Your task to perform on an android device: Add logitech g pro to the cart on costco, then select checkout. Image 0: 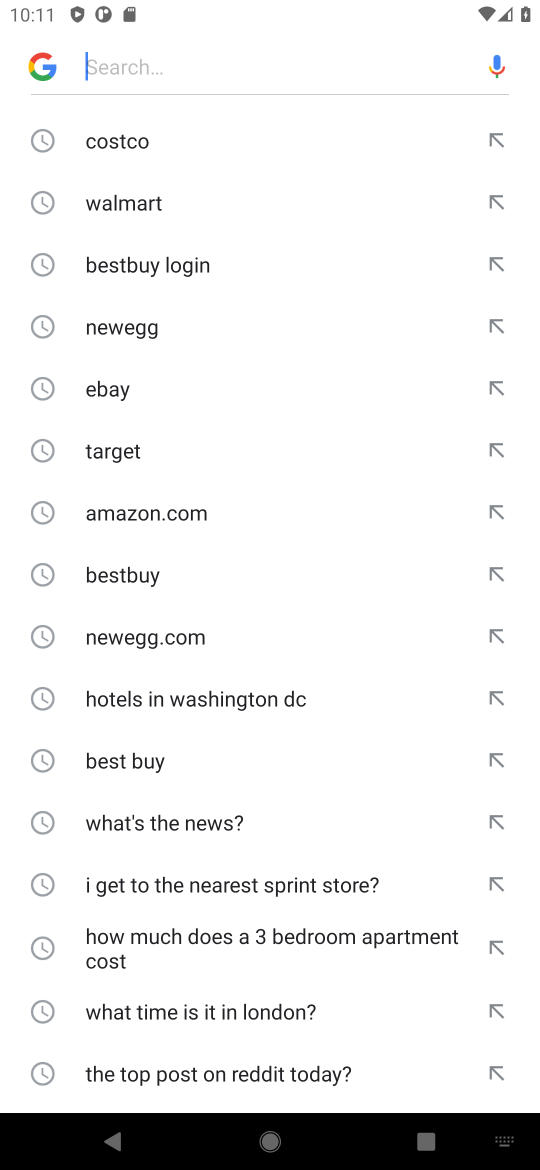
Step 0: press home button
Your task to perform on an android device: Add logitech g pro to the cart on costco, then select checkout. Image 1: 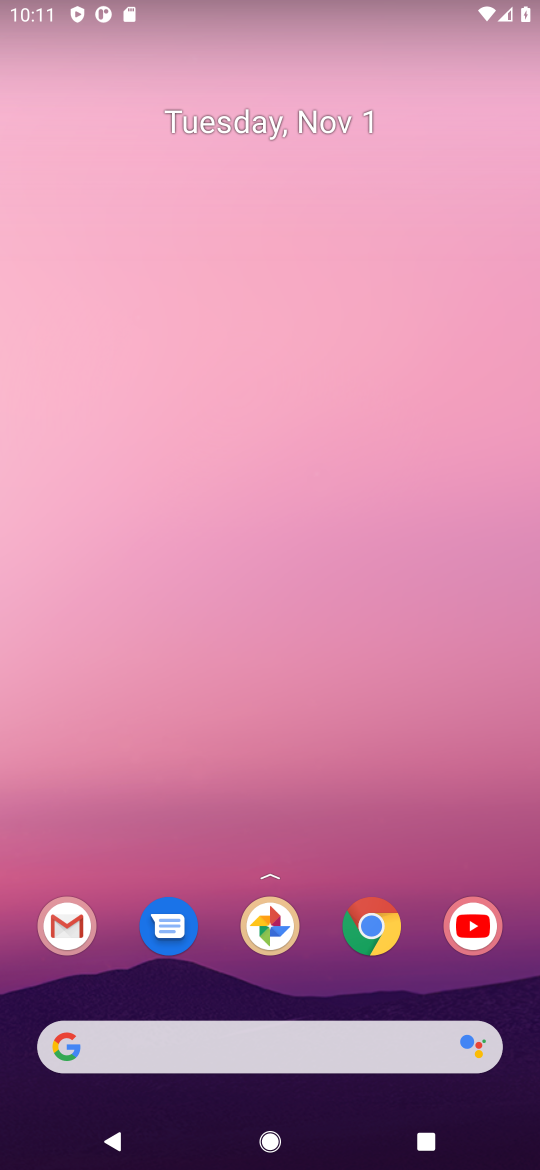
Step 1: click (372, 934)
Your task to perform on an android device: Add logitech g pro to the cart on costco, then select checkout. Image 2: 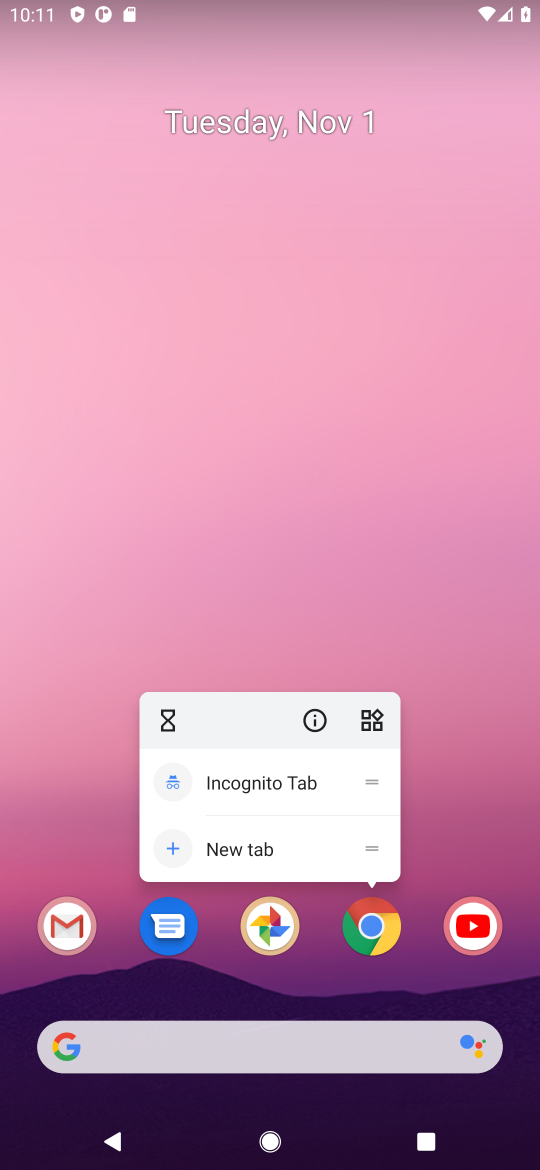
Step 2: click (371, 931)
Your task to perform on an android device: Add logitech g pro to the cart on costco, then select checkout. Image 3: 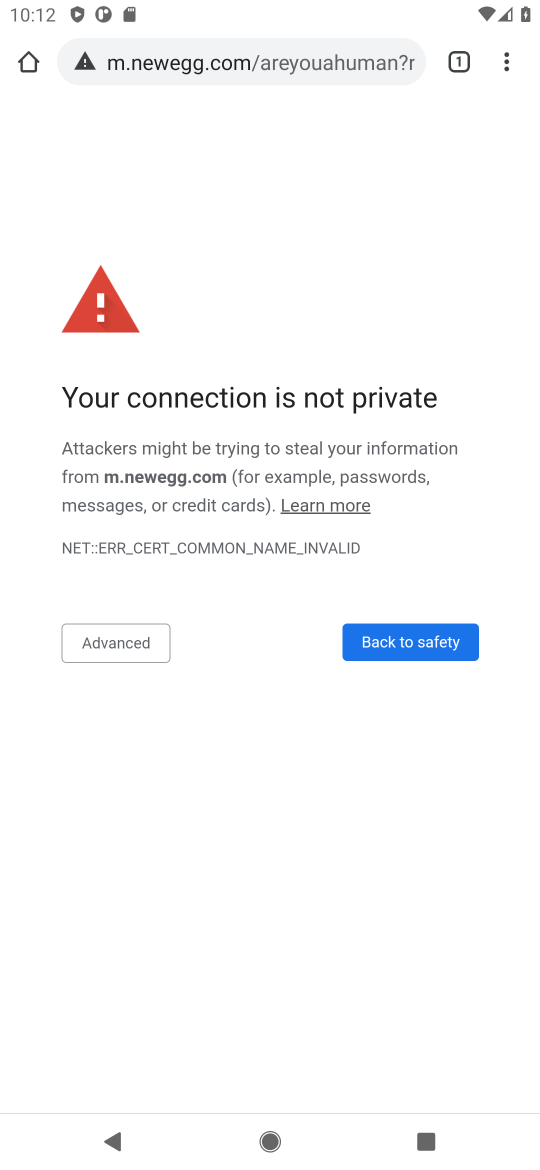
Step 3: click (176, 48)
Your task to perform on an android device: Add logitech g pro to the cart on costco, then select checkout. Image 4: 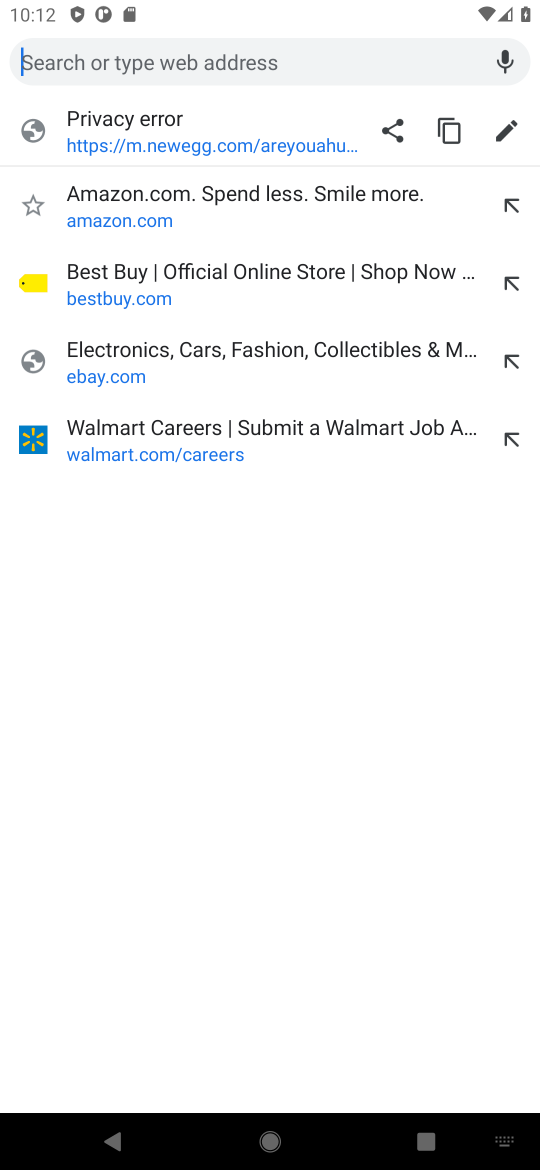
Step 4: type "costco"
Your task to perform on an android device: Add logitech g pro to the cart on costco, then select checkout. Image 5: 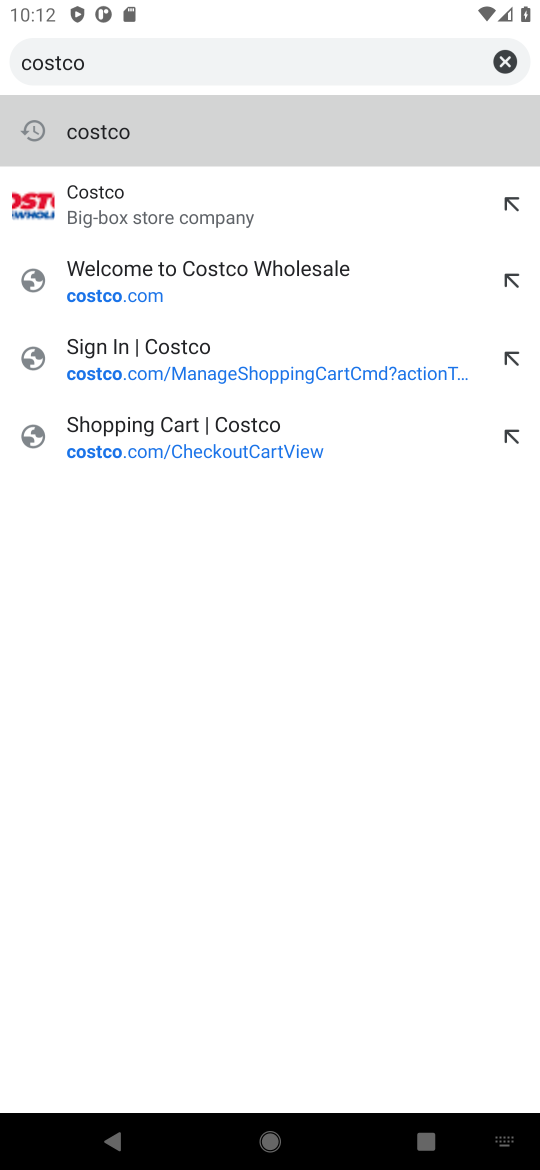
Step 5: click (140, 173)
Your task to perform on an android device: Add logitech g pro to the cart on costco, then select checkout. Image 6: 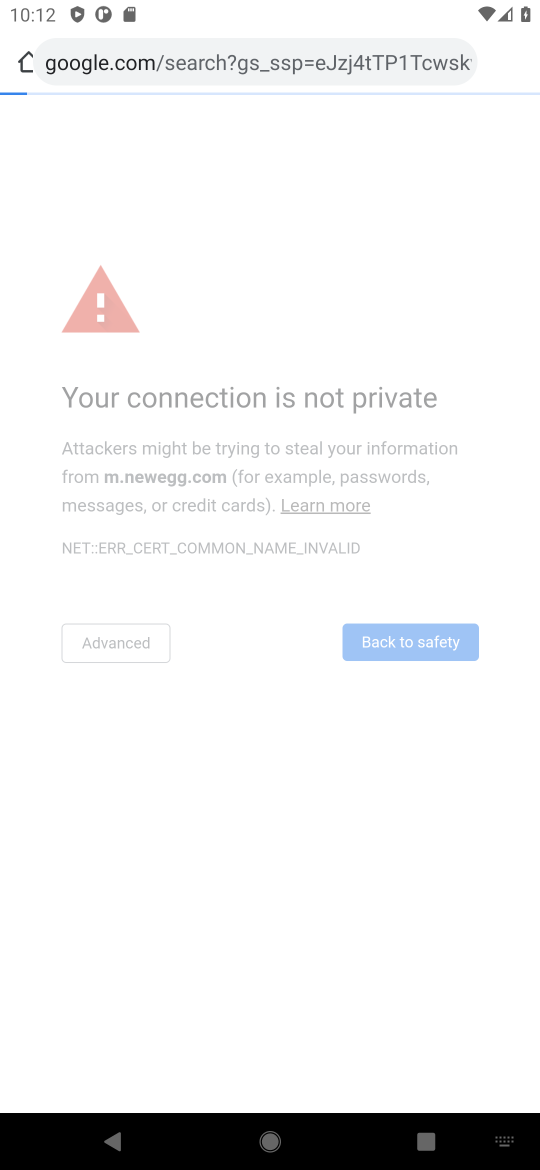
Step 6: click (88, 191)
Your task to perform on an android device: Add logitech g pro to the cart on costco, then select checkout. Image 7: 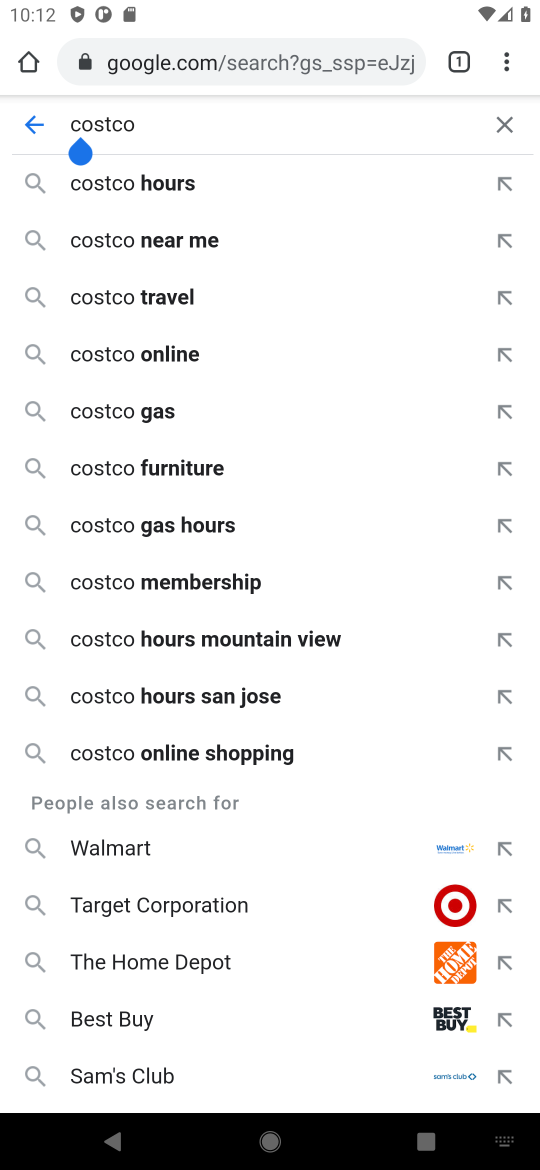
Step 7: press back button
Your task to perform on an android device: Add logitech g pro to the cart on costco, then select checkout. Image 8: 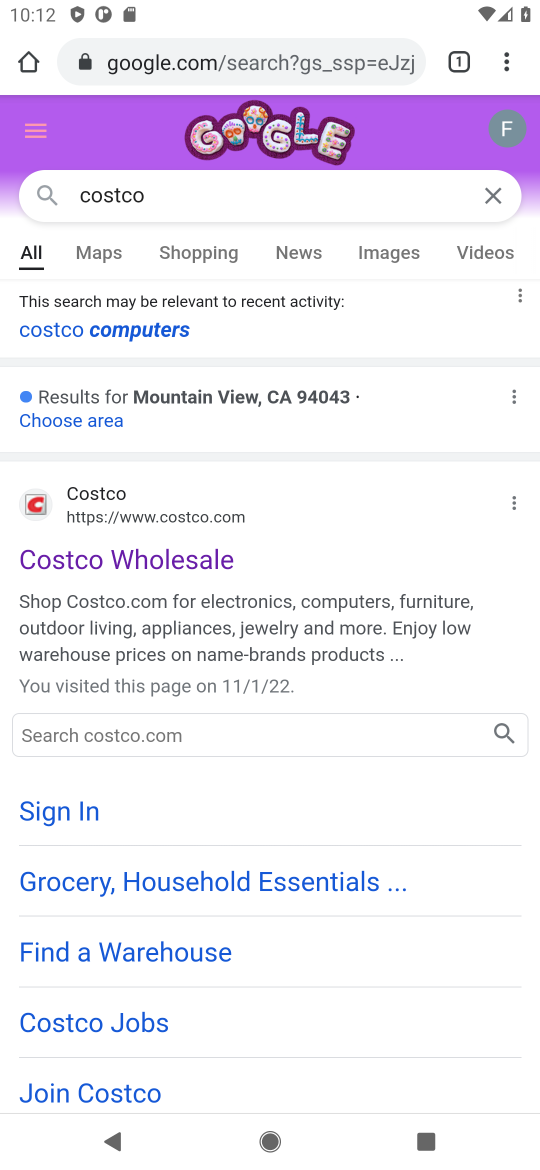
Step 8: drag from (184, 794) to (204, 67)
Your task to perform on an android device: Add logitech g pro to the cart on costco, then select checkout. Image 9: 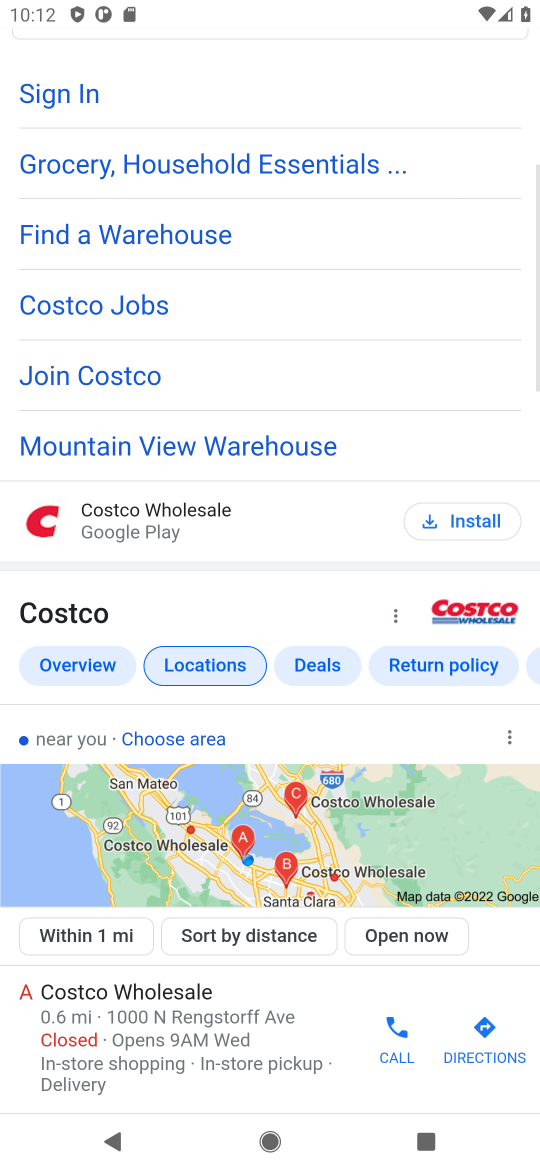
Step 9: drag from (115, 945) to (114, 481)
Your task to perform on an android device: Add logitech g pro to the cart on costco, then select checkout. Image 10: 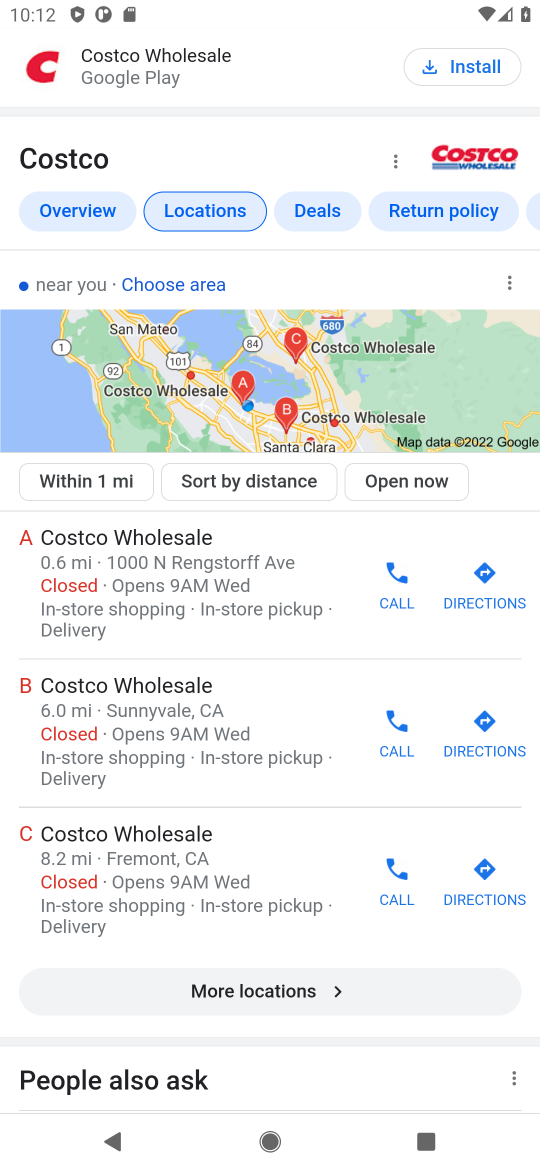
Step 10: drag from (119, 718) to (215, 233)
Your task to perform on an android device: Add logitech g pro to the cart on costco, then select checkout. Image 11: 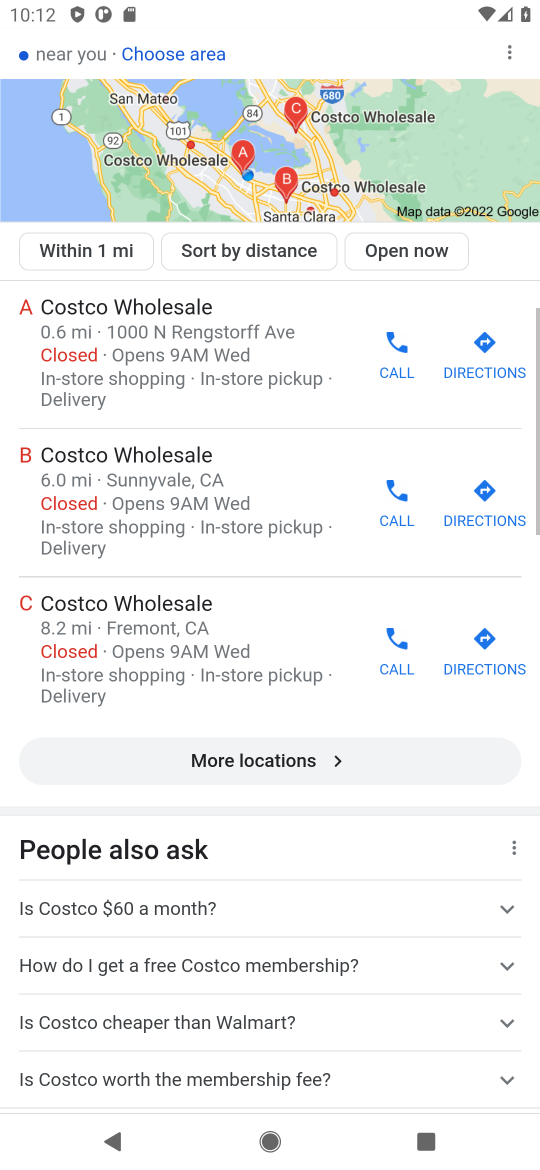
Step 11: drag from (162, 515) to (166, 1149)
Your task to perform on an android device: Add logitech g pro to the cart on costco, then select checkout. Image 12: 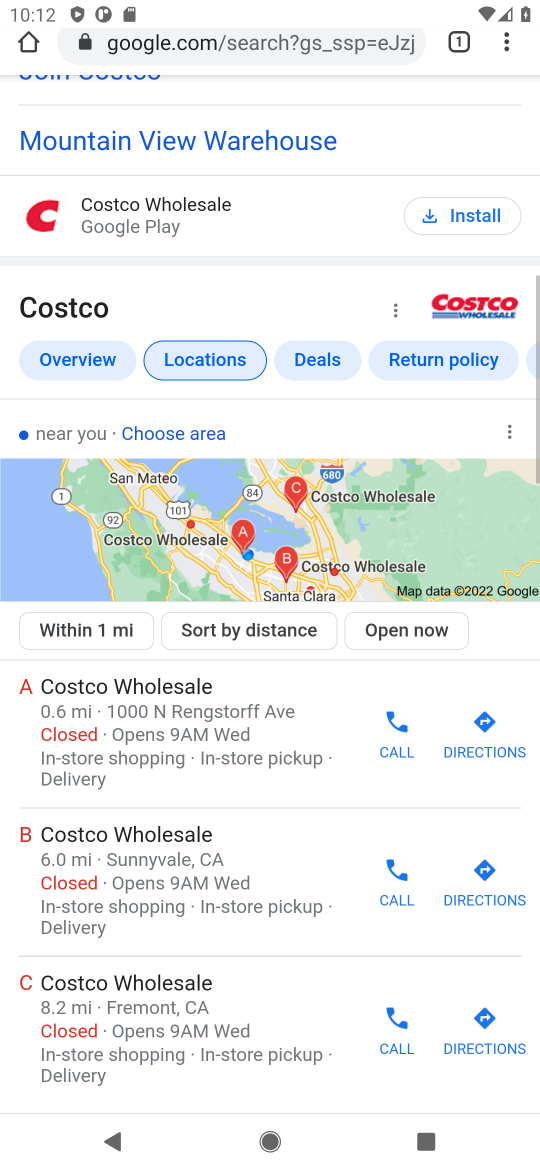
Step 12: drag from (150, 640) to (167, 1118)
Your task to perform on an android device: Add logitech g pro to the cart on costco, then select checkout. Image 13: 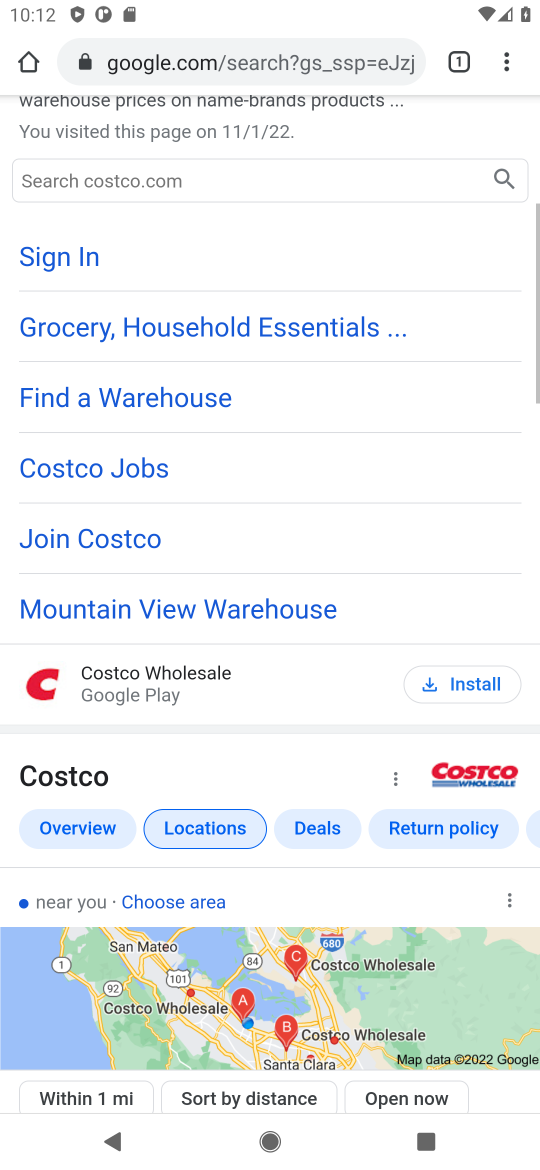
Step 13: drag from (253, 524) to (214, 1033)
Your task to perform on an android device: Add logitech g pro to the cart on costco, then select checkout. Image 14: 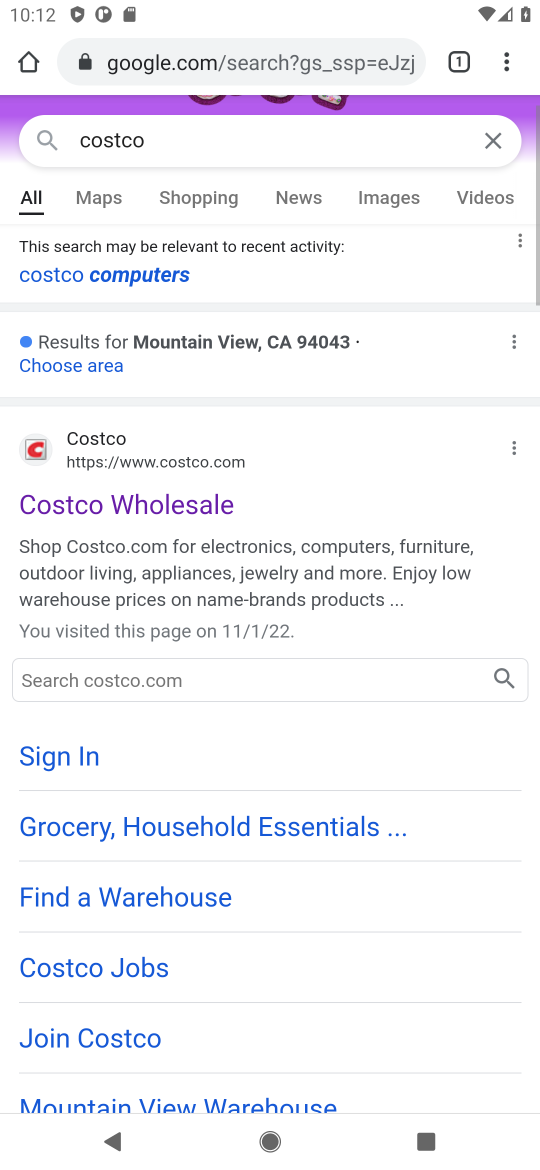
Step 14: drag from (142, 302) to (157, 1062)
Your task to perform on an android device: Add logitech g pro to the cart on costco, then select checkout. Image 15: 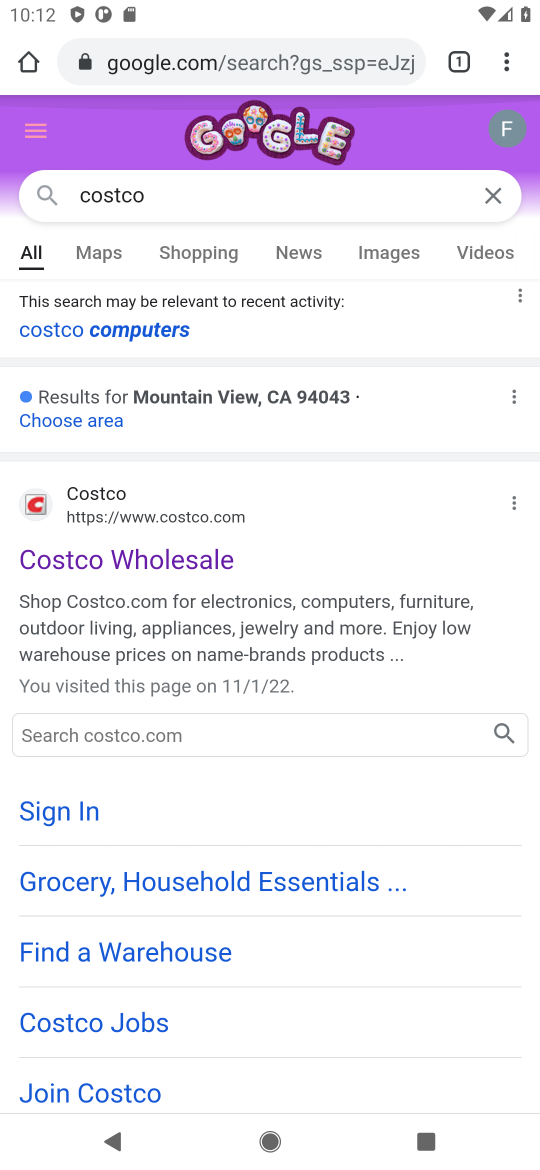
Step 15: click (141, 559)
Your task to perform on an android device: Add logitech g pro to the cart on costco, then select checkout. Image 16: 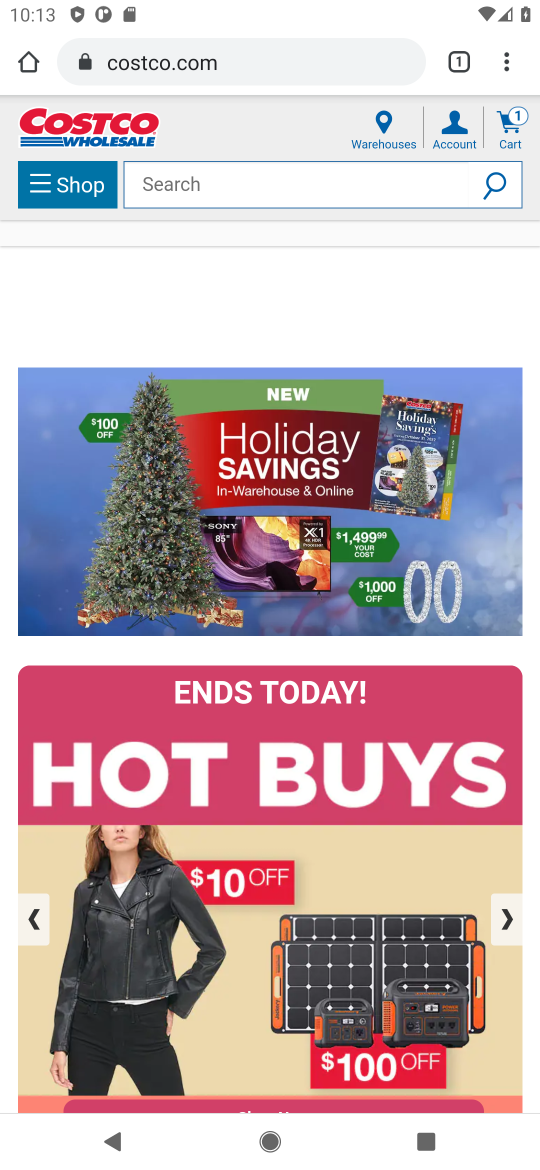
Step 16: click (176, 175)
Your task to perform on an android device: Add logitech g pro to the cart on costco, then select checkout. Image 17: 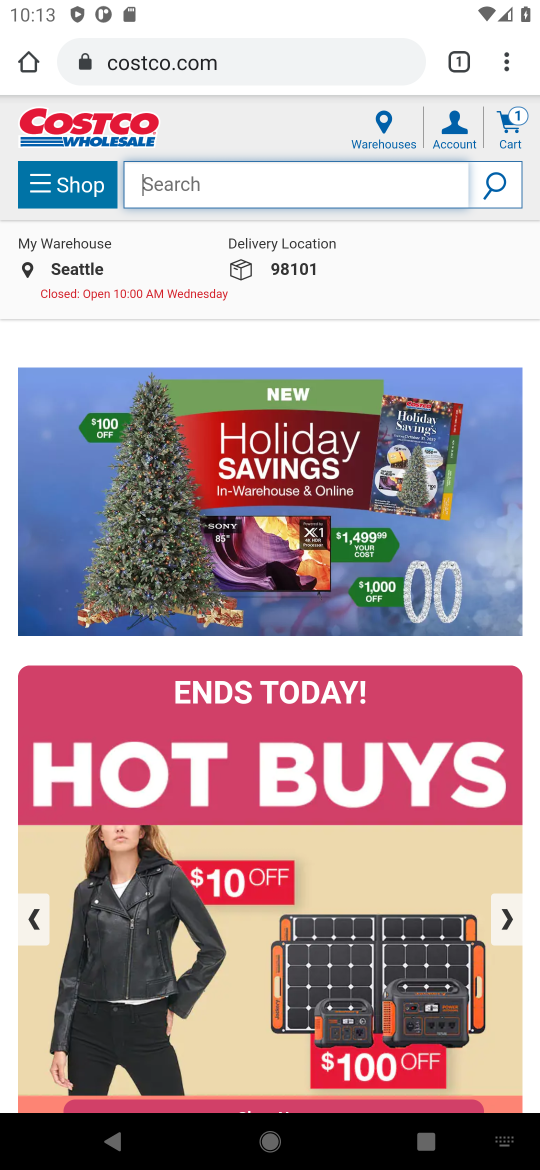
Step 17: type "logitech g pro"
Your task to perform on an android device: Add logitech g pro to the cart on costco, then select checkout. Image 18: 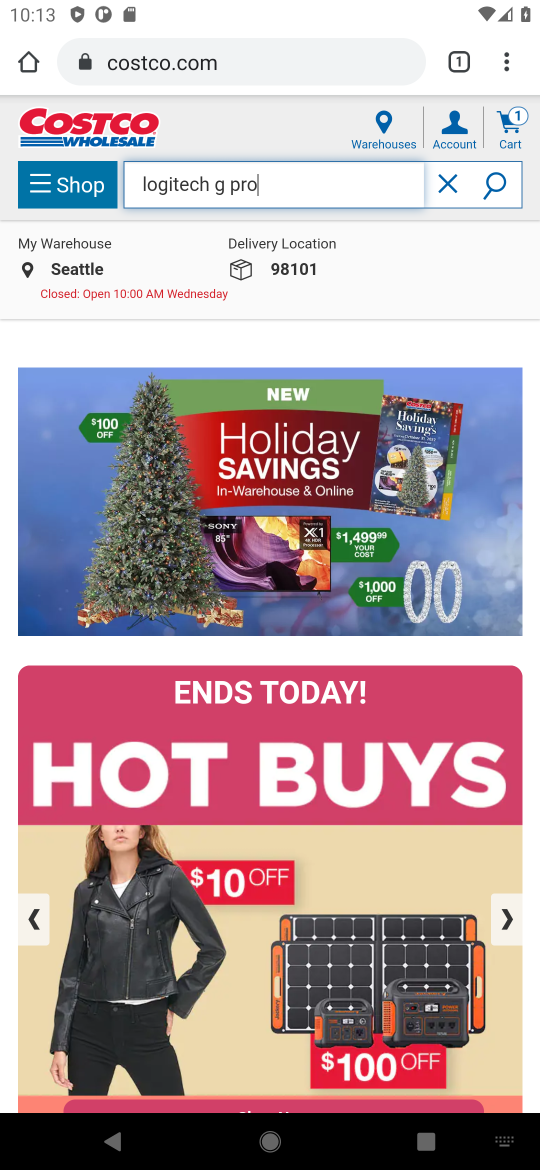
Step 18: type ""
Your task to perform on an android device: Add logitech g pro to the cart on costco, then select checkout. Image 19: 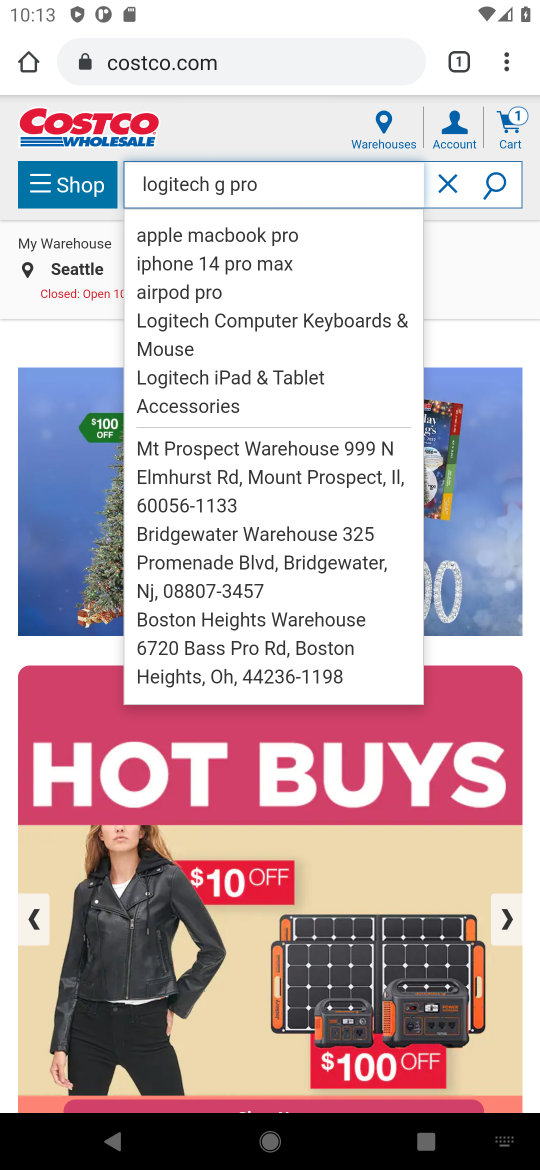
Step 19: click (176, 324)
Your task to perform on an android device: Add logitech g pro to the cart on costco, then select checkout. Image 20: 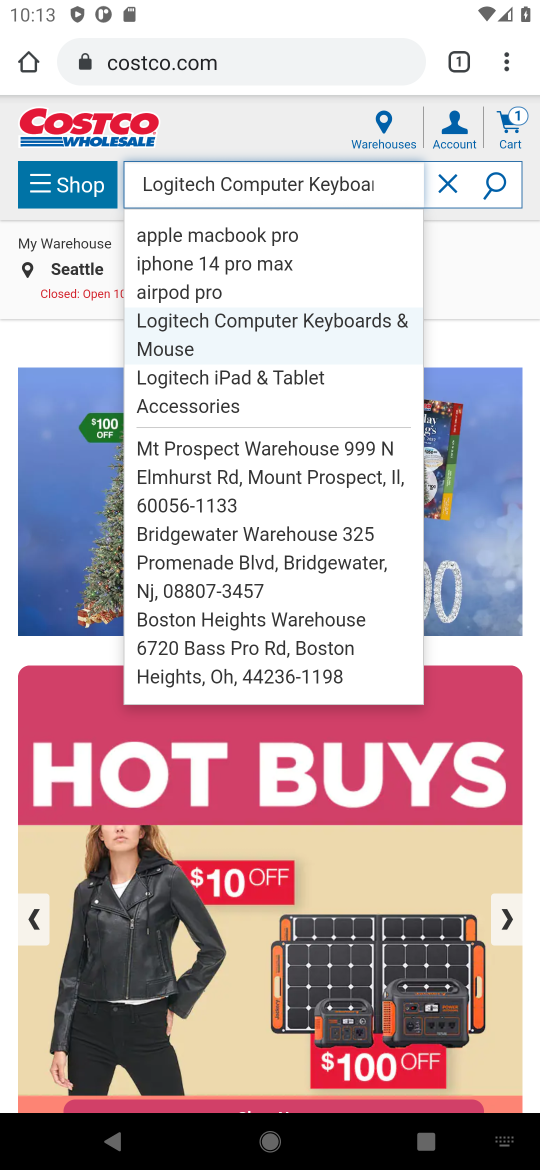
Step 20: click (205, 327)
Your task to perform on an android device: Add logitech g pro to the cart on costco, then select checkout. Image 21: 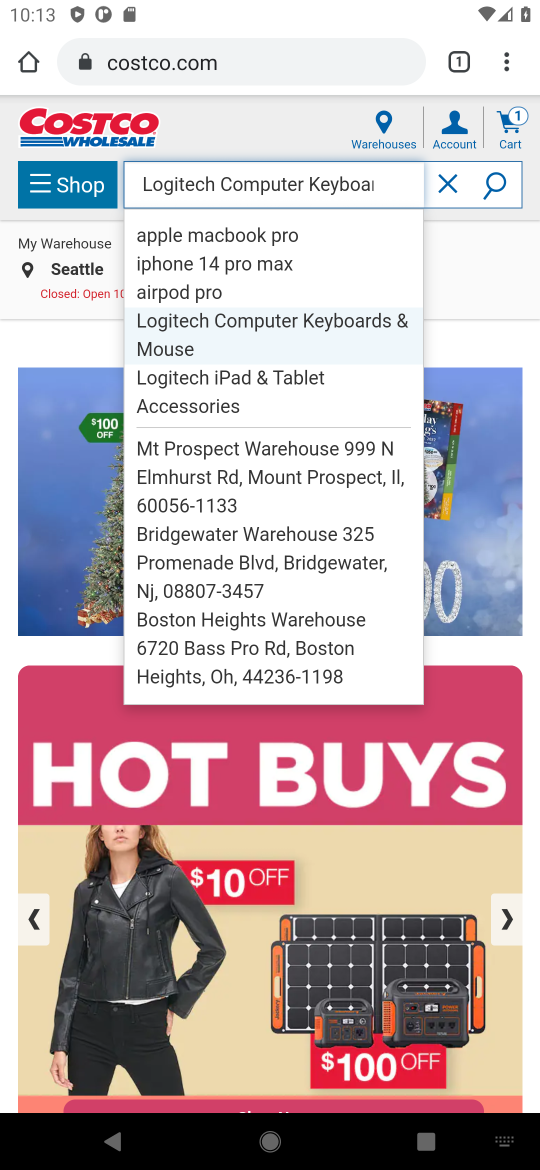
Step 21: click (259, 241)
Your task to perform on an android device: Add logitech g pro to the cart on costco, then select checkout. Image 22: 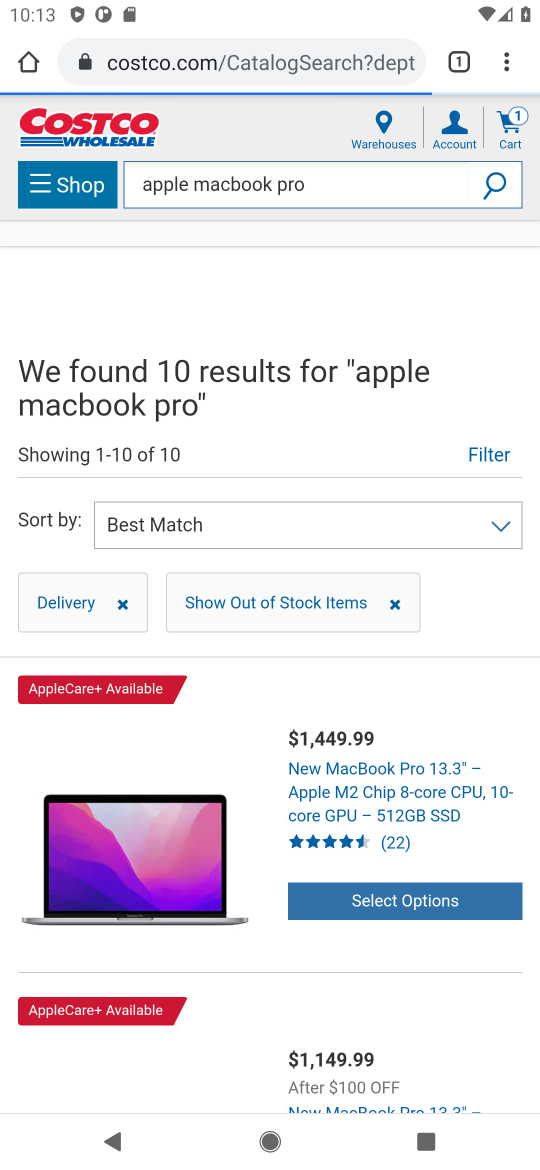
Step 22: drag from (241, 851) to (249, 397)
Your task to perform on an android device: Add logitech g pro to the cart on costco, then select checkout. Image 23: 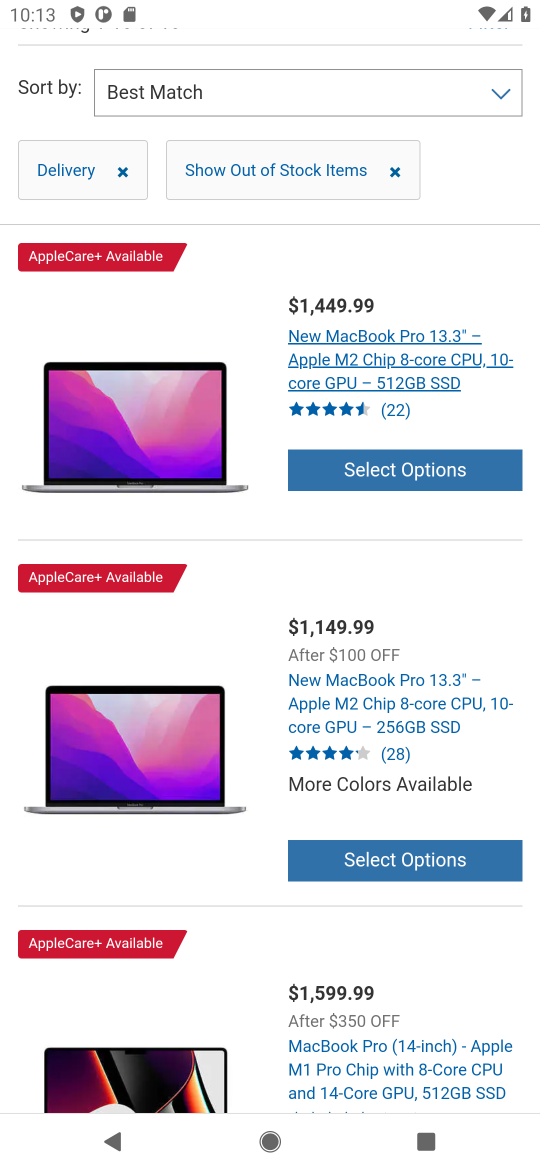
Step 23: click (338, 360)
Your task to perform on an android device: Add logitech g pro to the cart on costco, then select checkout. Image 24: 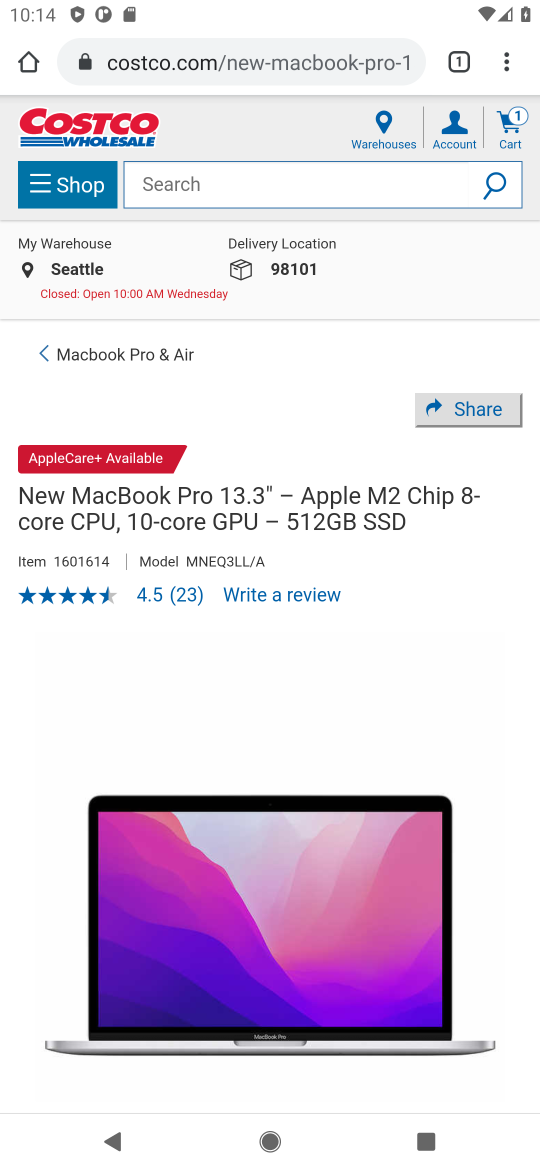
Step 24: drag from (94, 808) to (355, 144)
Your task to perform on an android device: Add logitech g pro to the cart on costco, then select checkout. Image 25: 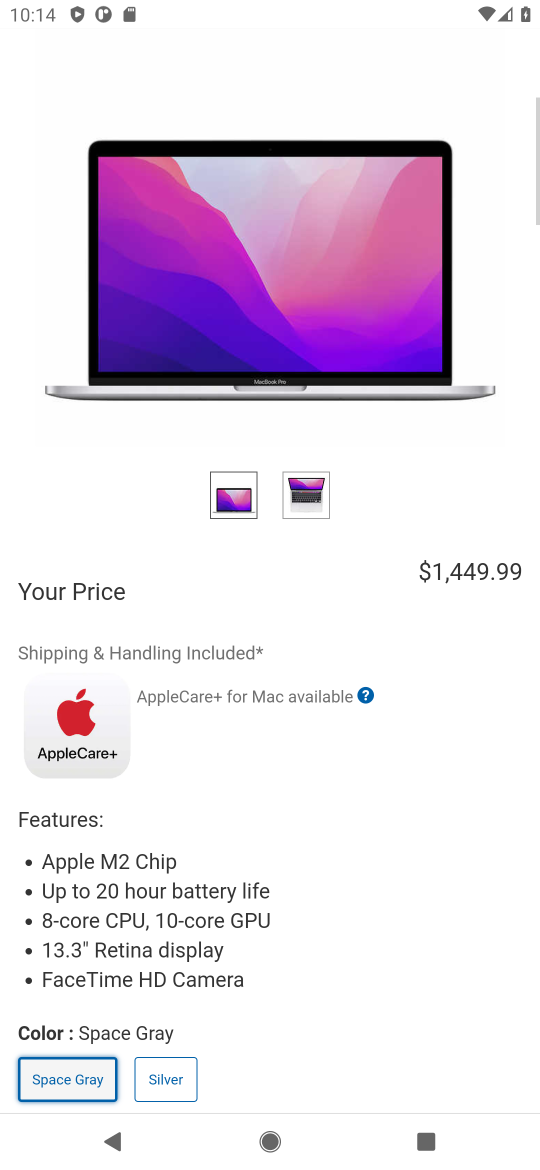
Step 25: drag from (277, 914) to (373, 320)
Your task to perform on an android device: Add logitech g pro to the cart on costco, then select checkout. Image 26: 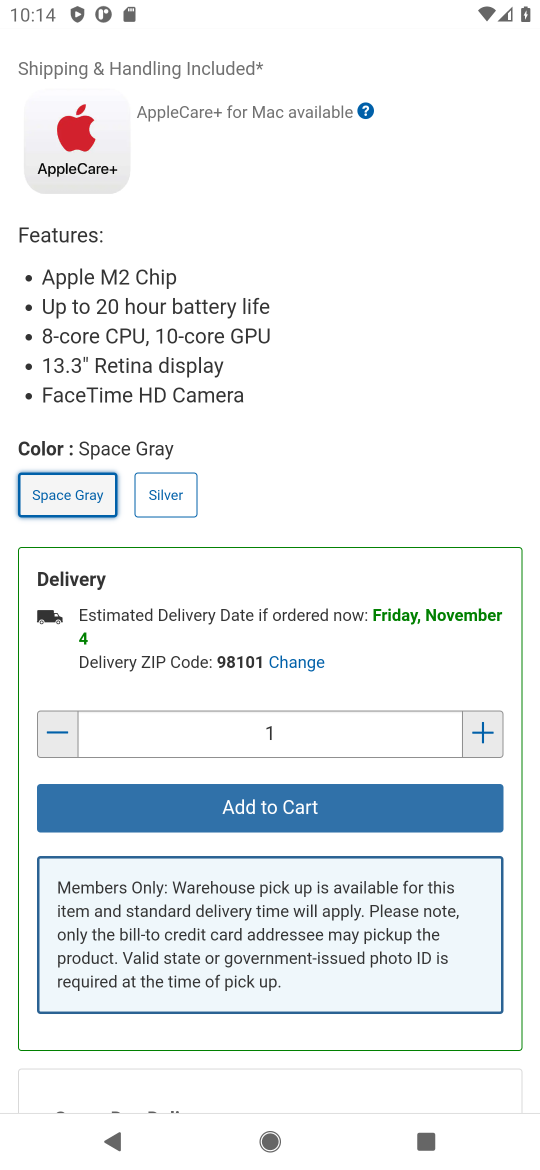
Step 26: drag from (361, 879) to (381, 489)
Your task to perform on an android device: Add logitech g pro to the cart on costco, then select checkout. Image 27: 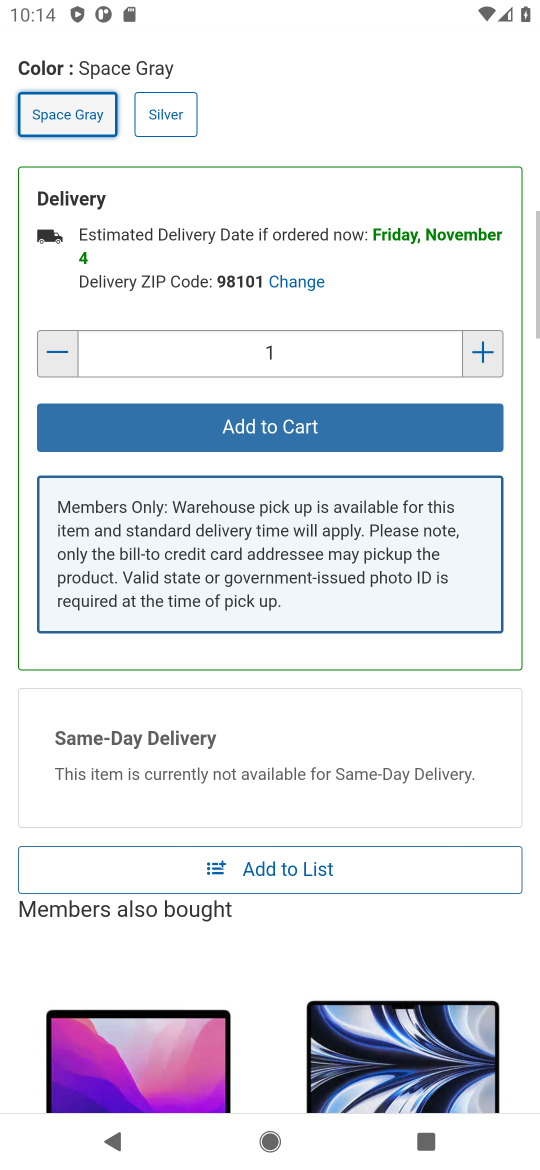
Step 27: drag from (307, 942) to (312, 499)
Your task to perform on an android device: Add logitech g pro to the cart on costco, then select checkout. Image 28: 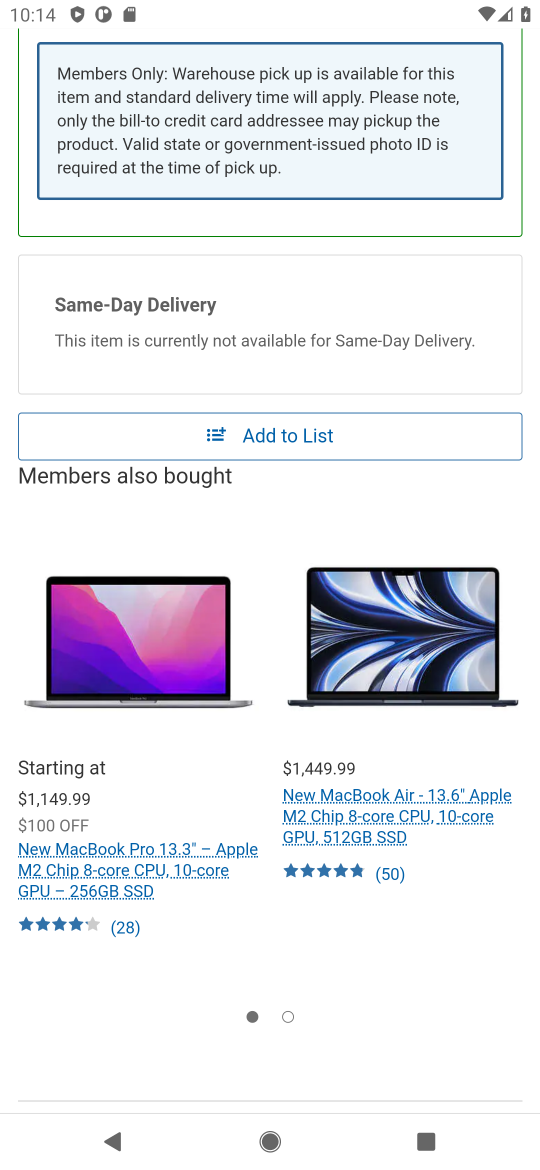
Step 28: click (266, 431)
Your task to perform on an android device: Add logitech g pro to the cart on costco, then select checkout. Image 29: 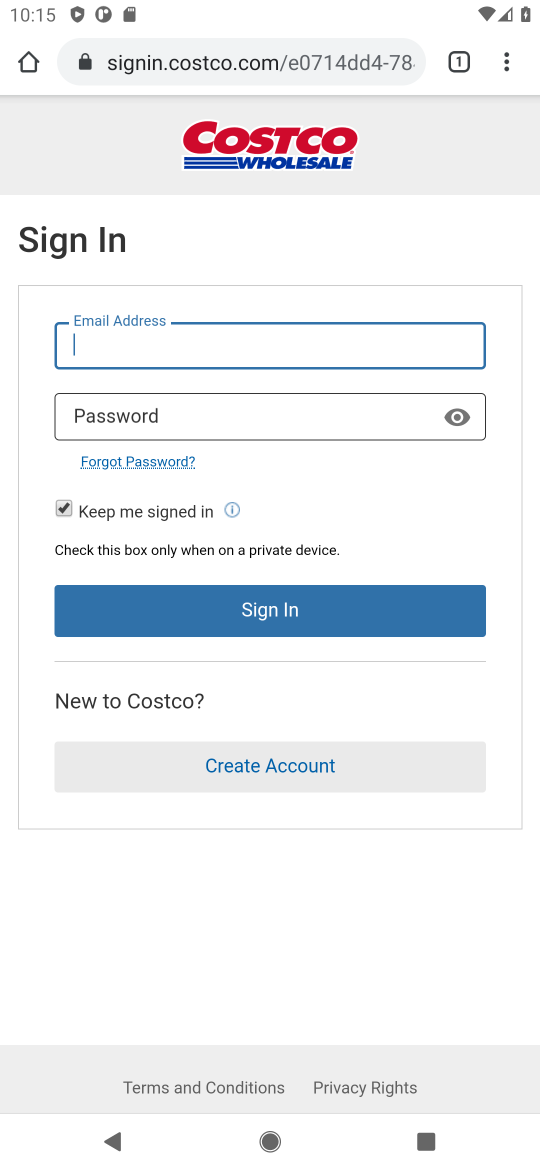
Step 29: task complete